Your task to perform on an android device: change the clock display to digital Image 0: 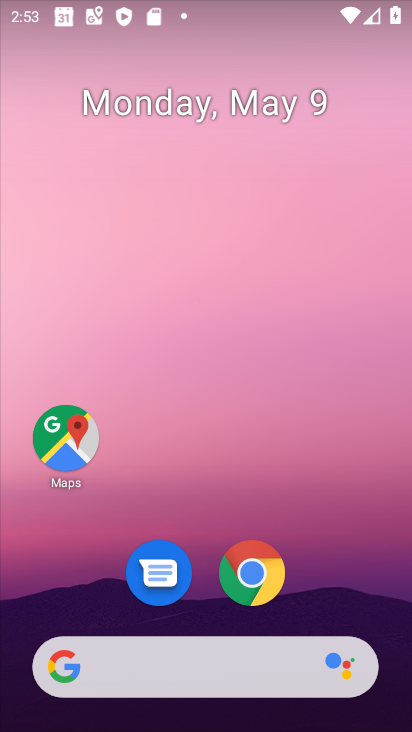
Step 0: drag from (253, 634) to (278, 363)
Your task to perform on an android device: change the clock display to digital Image 1: 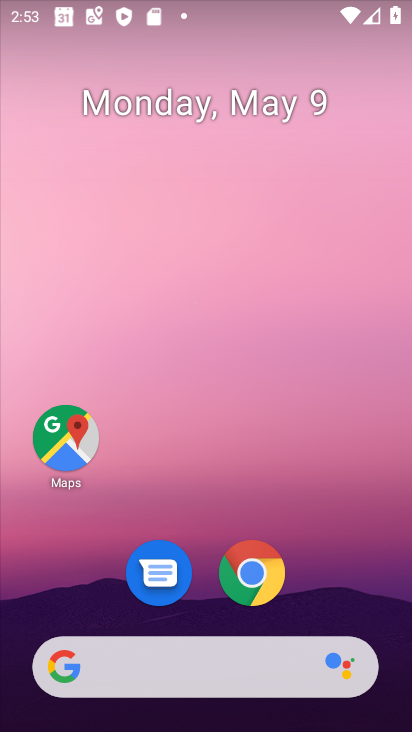
Step 1: drag from (240, 639) to (297, 247)
Your task to perform on an android device: change the clock display to digital Image 2: 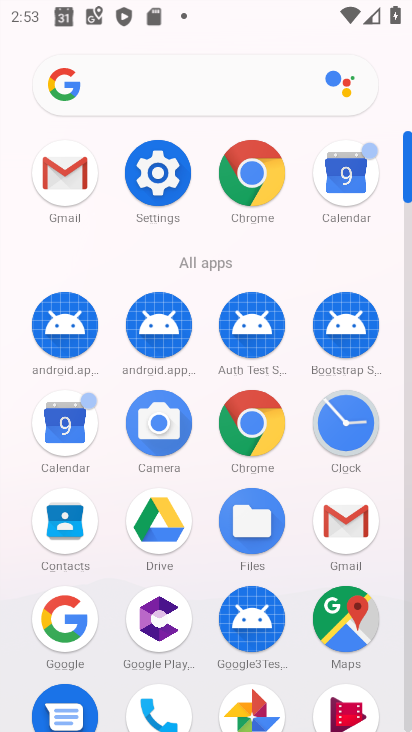
Step 2: click (327, 430)
Your task to perform on an android device: change the clock display to digital Image 3: 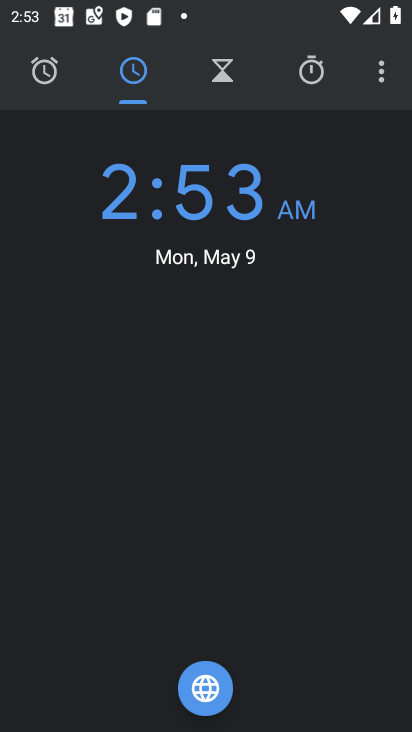
Step 3: click (385, 77)
Your task to perform on an android device: change the clock display to digital Image 4: 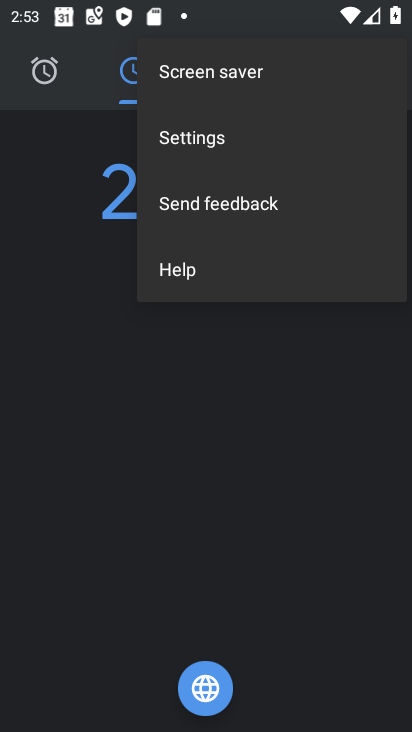
Step 4: click (209, 140)
Your task to perform on an android device: change the clock display to digital Image 5: 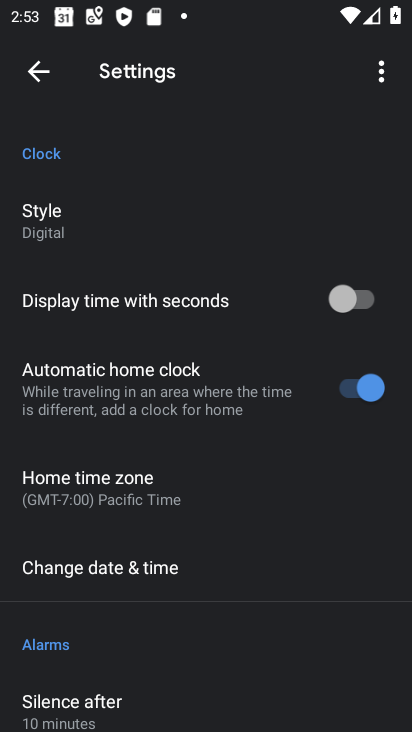
Step 5: click (41, 230)
Your task to perform on an android device: change the clock display to digital Image 6: 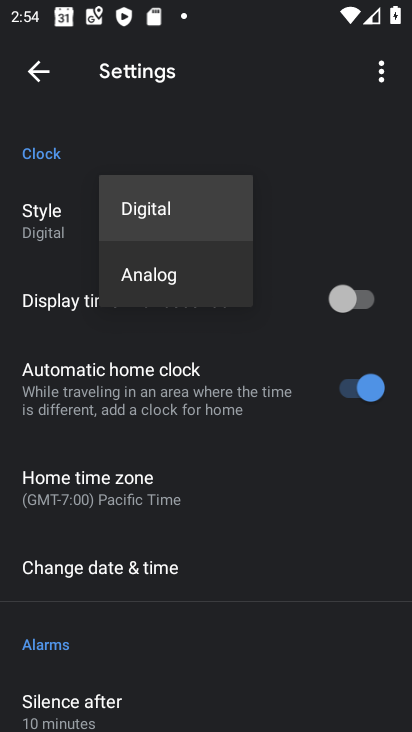
Step 6: click (142, 220)
Your task to perform on an android device: change the clock display to digital Image 7: 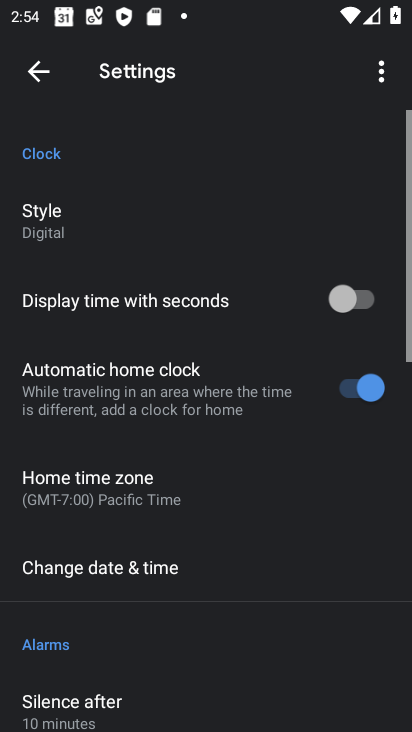
Step 7: task complete